Your task to perform on an android device: Go to ESPN.com Image 0: 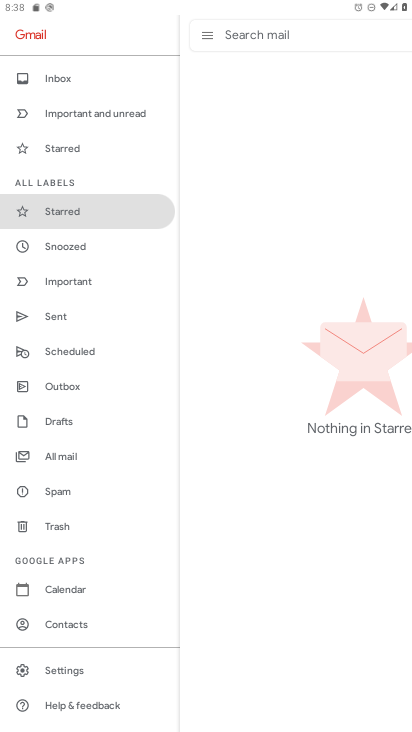
Step 0: press home button
Your task to perform on an android device: Go to ESPN.com Image 1: 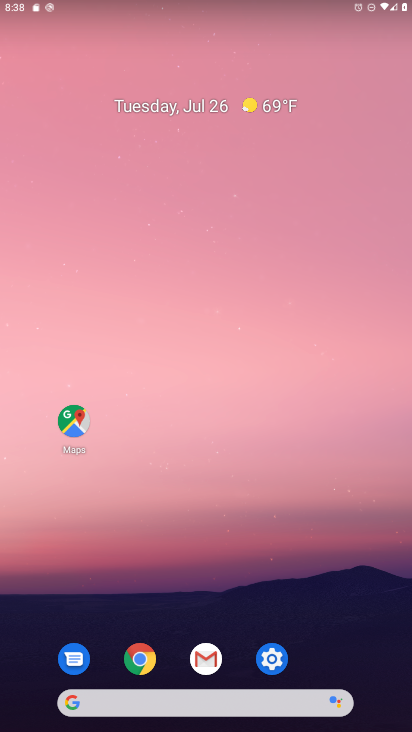
Step 1: click (140, 656)
Your task to perform on an android device: Go to ESPN.com Image 2: 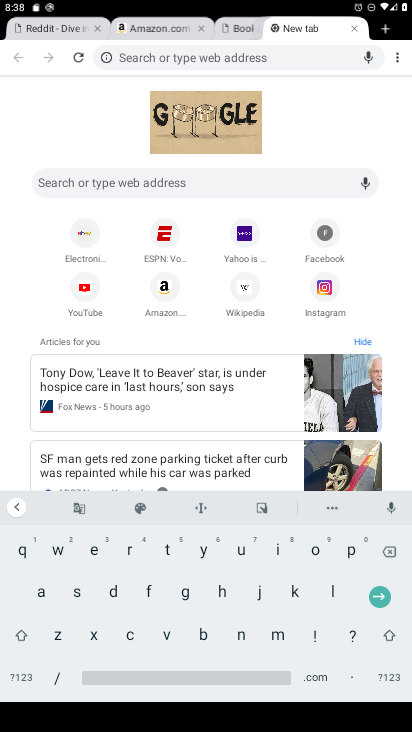
Step 2: click (162, 245)
Your task to perform on an android device: Go to ESPN.com Image 3: 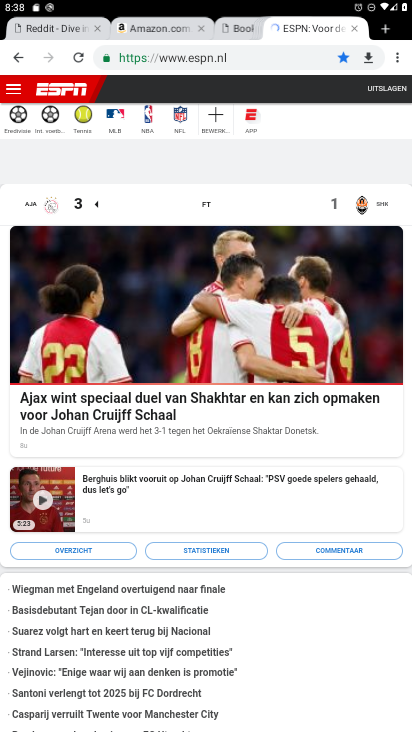
Step 3: task complete